Your task to perform on an android device: show emergency info Image 0: 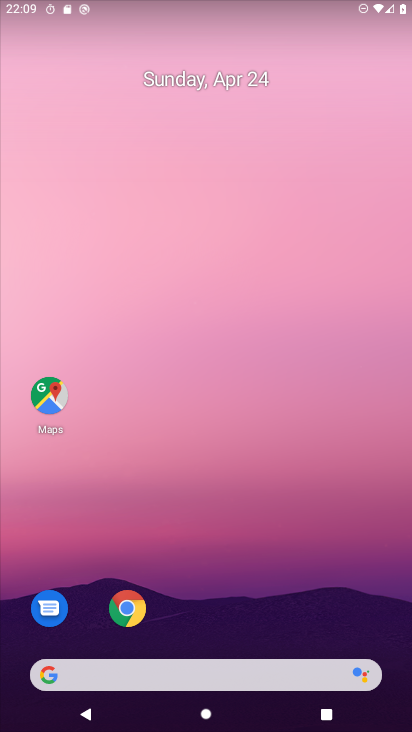
Step 0: drag from (220, 597) to (276, 30)
Your task to perform on an android device: show emergency info Image 1: 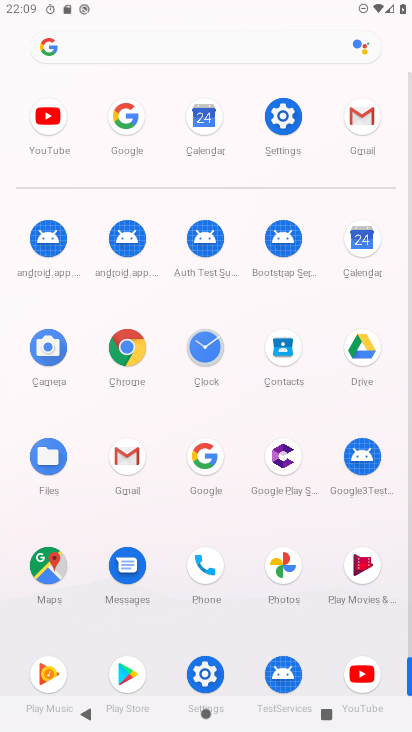
Step 1: click (285, 111)
Your task to perform on an android device: show emergency info Image 2: 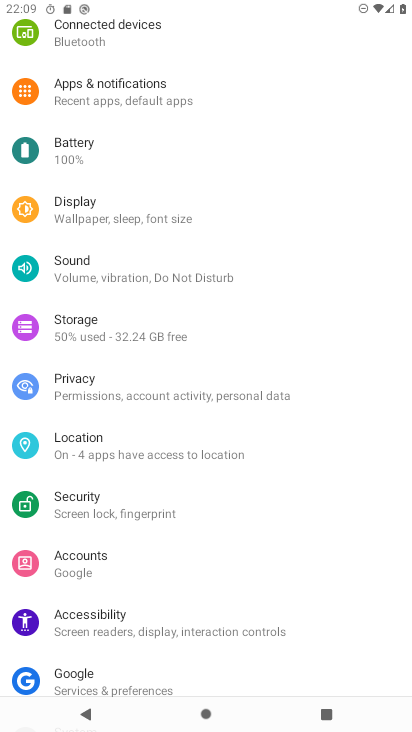
Step 2: drag from (220, 547) to (233, 174)
Your task to perform on an android device: show emergency info Image 3: 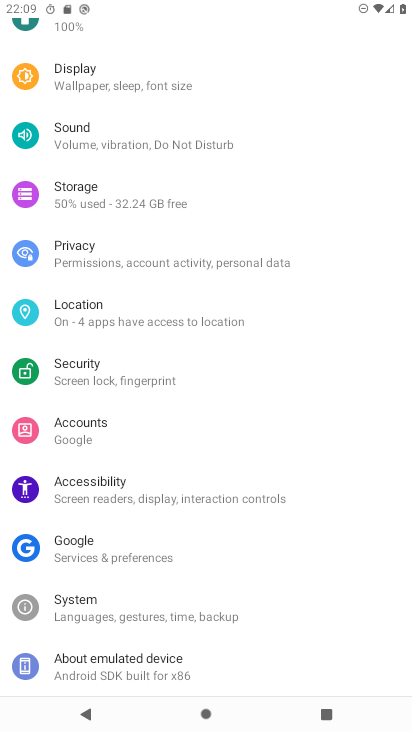
Step 3: click (132, 669)
Your task to perform on an android device: show emergency info Image 4: 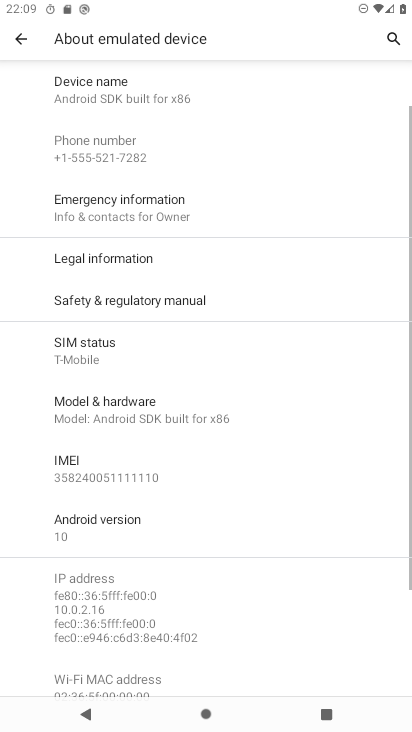
Step 4: click (215, 209)
Your task to perform on an android device: show emergency info Image 5: 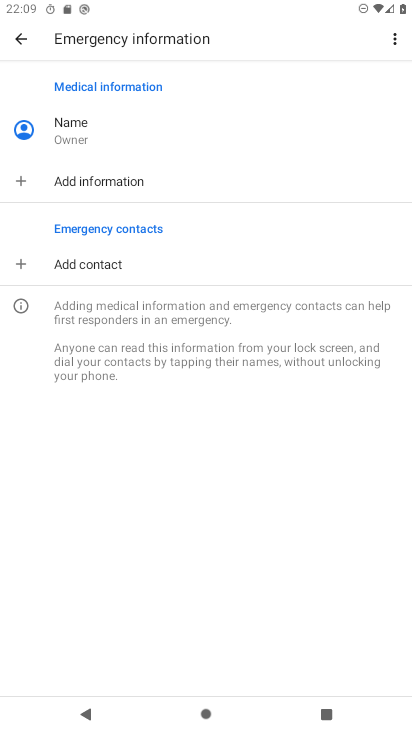
Step 5: task complete